Your task to perform on an android device: Go to notification settings Image 0: 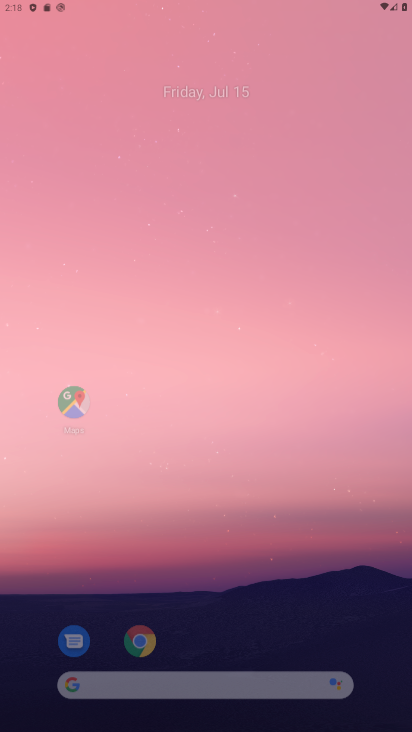
Step 0: drag from (246, 655) to (161, 126)
Your task to perform on an android device: Go to notification settings Image 1: 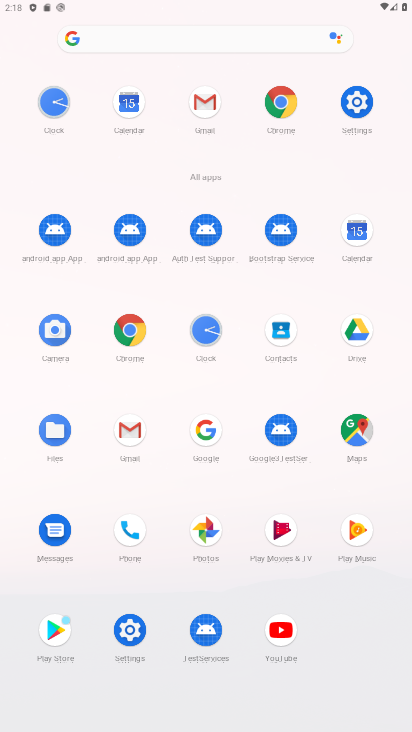
Step 1: click (351, 101)
Your task to perform on an android device: Go to notification settings Image 2: 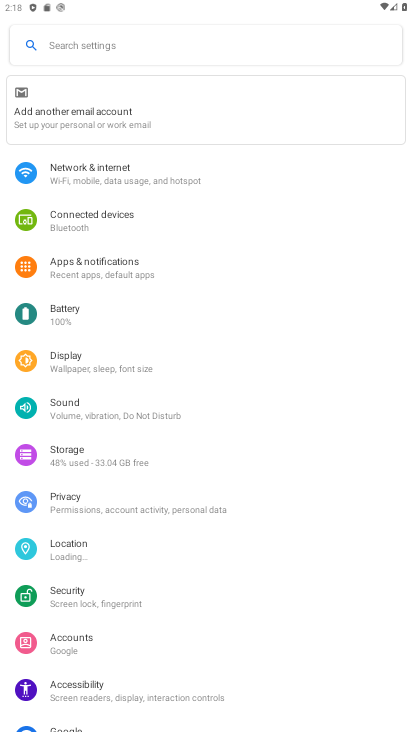
Step 2: click (64, 364)
Your task to perform on an android device: Go to notification settings Image 3: 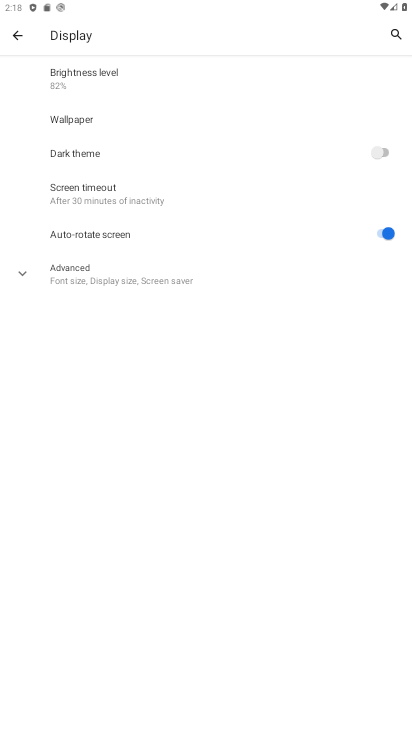
Step 3: click (70, 270)
Your task to perform on an android device: Go to notification settings Image 4: 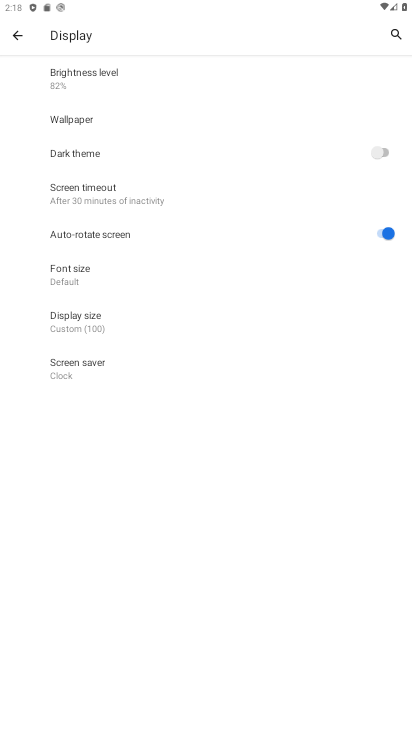
Step 4: click (60, 276)
Your task to perform on an android device: Go to notification settings Image 5: 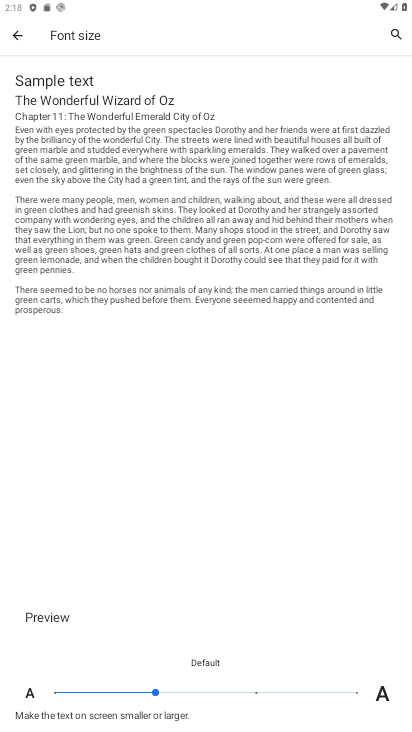
Step 5: click (350, 699)
Your task to perform on an android device: Go to notification settings Image 6: 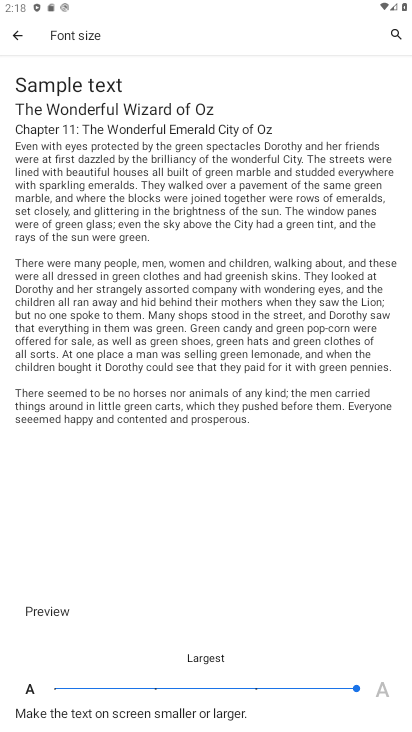
Step 6: press back button
Your task to perform on an android device: Go to notification settings Image 7: 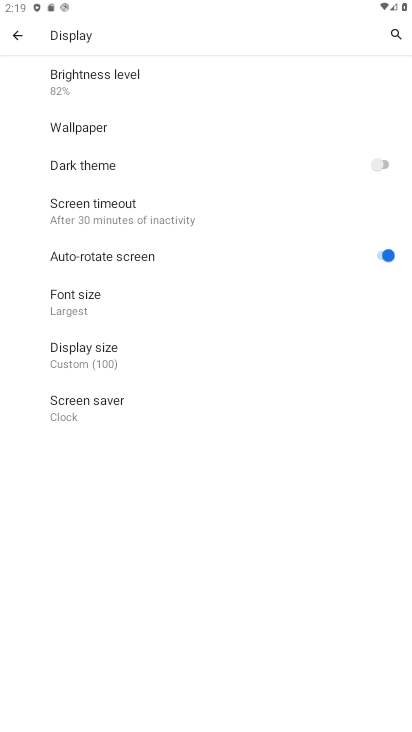
Step 7: click (12, 33)
Your task to perform on an android device: Go to notification settings Image 8: 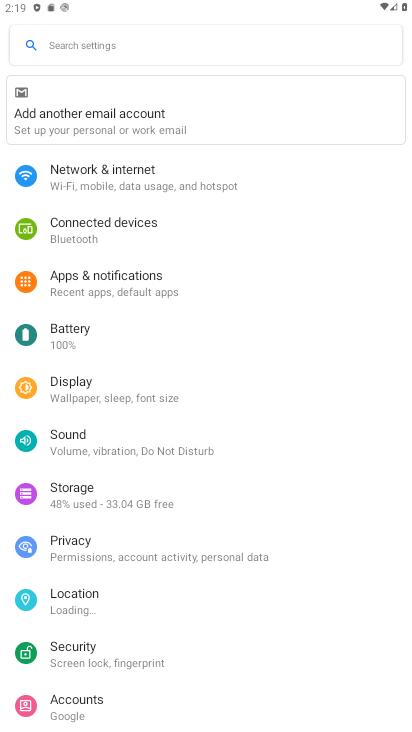
Step 8: click (105, 278)
Your task to perform on an android device: Go to notification settings Image 9: 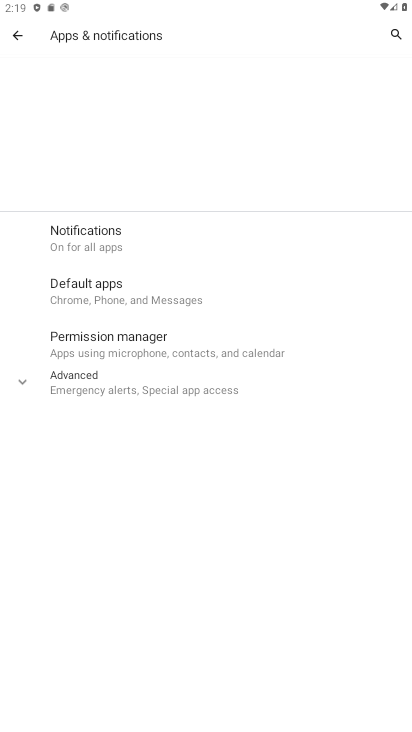
Step 9: task complete